Your task to perform on an android device: turn on location history Image 0: 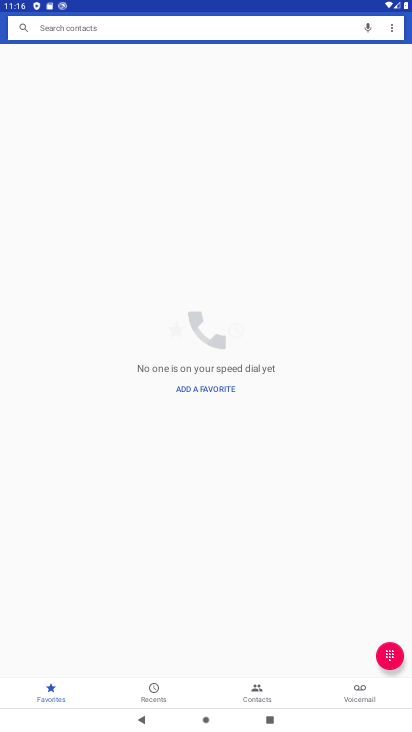
Step 0: press home button
Your task to perform on an android device: turn on location history Image 1: 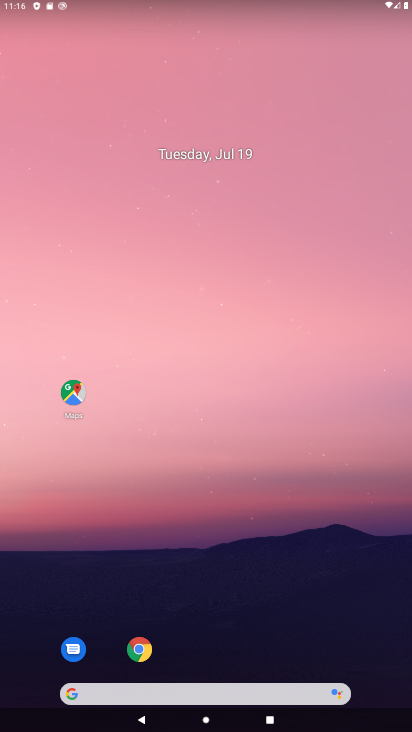
Step 1: drag from (264, 646) to (288, 259)
Your task to perform on an android device: turn on location history Image 2: 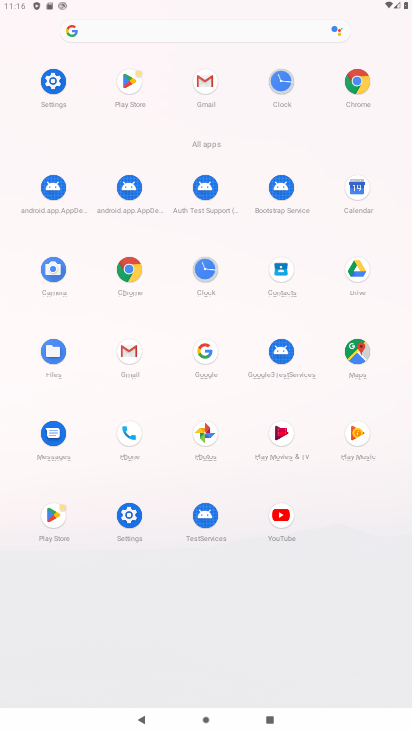
Step 2: click (130, 525)
Your task to perform on an android device: turn on location history Image 3: 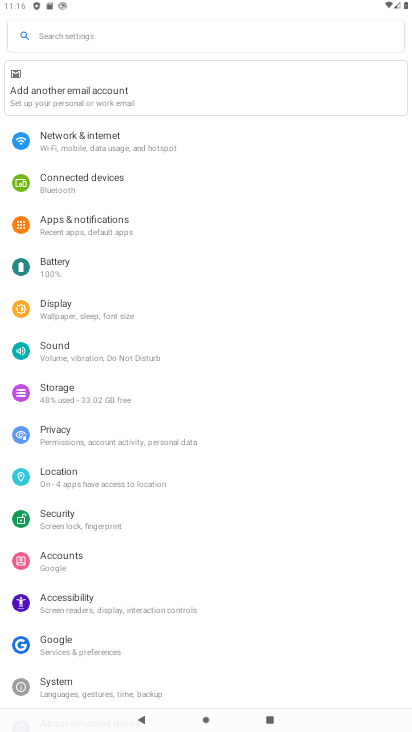
Step 3: click (43, 484)
Your task to perform on an android device: turn on location history Image 4: 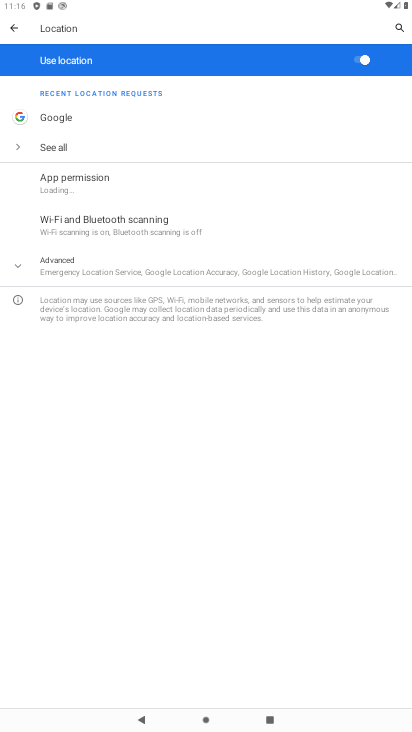
Step 4: click (89, 270)
Your task to perform on an android device: turn on location history Image 5: 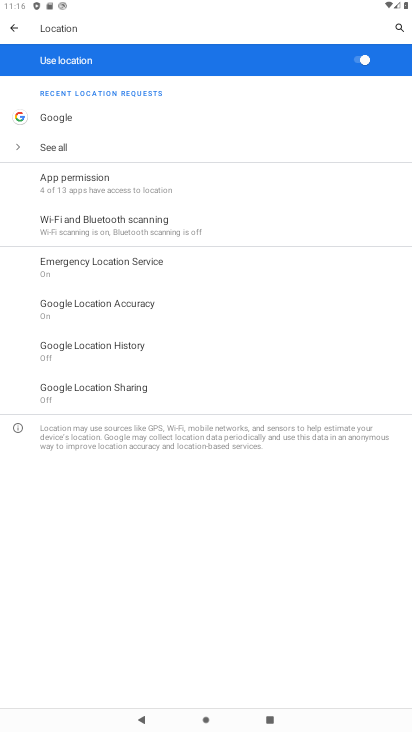
Step 5: click (175, 352)
Your task to perform on an android device: turn on location history Image 6: 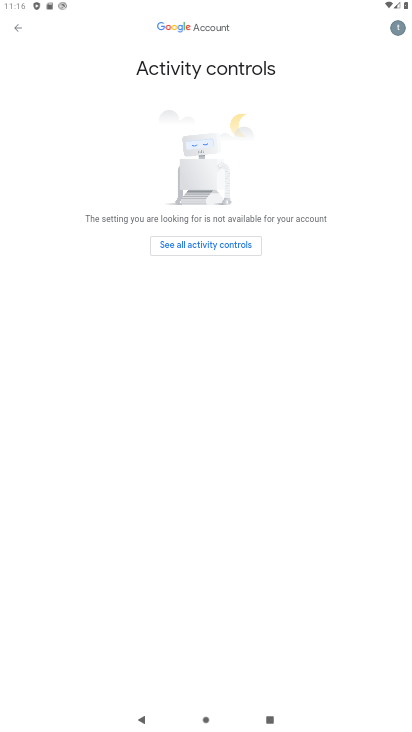
Step 6: task complete